Your task to perform on an android device: Add "asus zenbook" to the cart on costco Image 0: 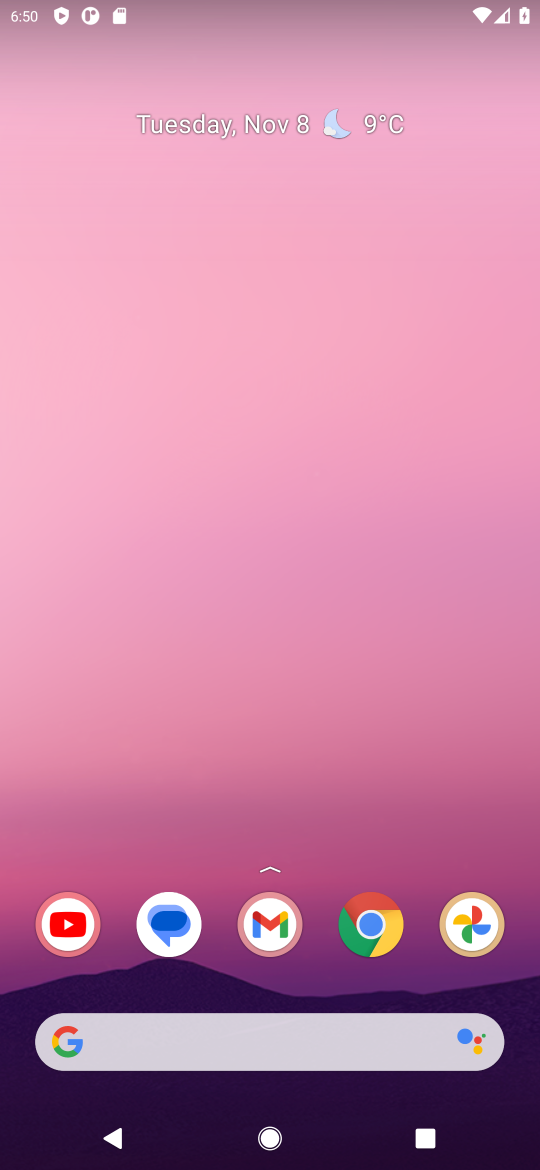
Step 0: click (278, 1046)
Your task to perform on an android device: Add "asus zenbook" to the cart on costco Image 1: 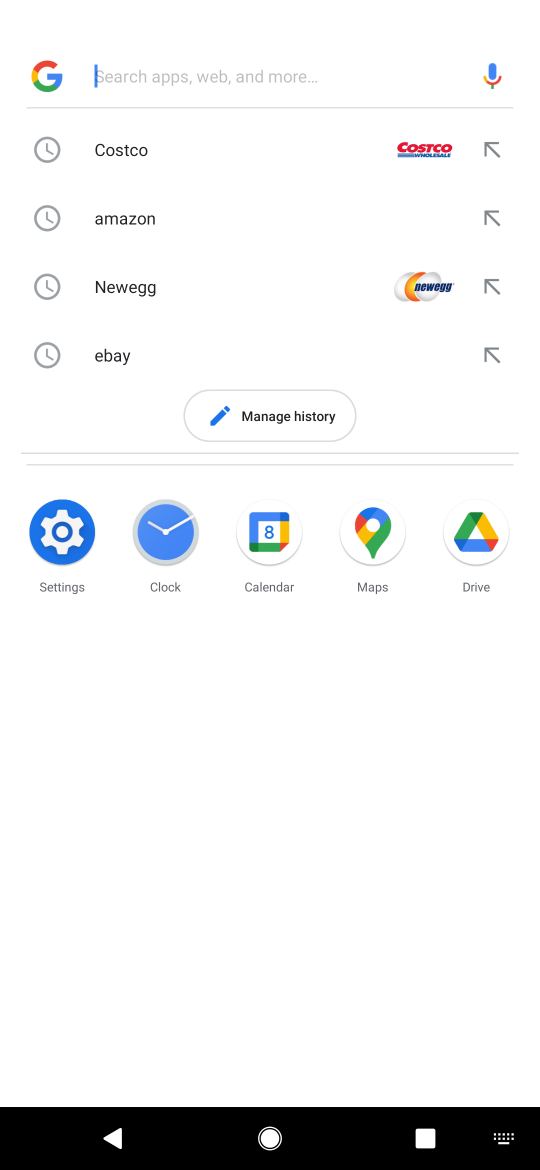
Step 1: click (296, 148)
Your task to perform on an android device: Add "asus zenbook" to the cart on costco Image 2: 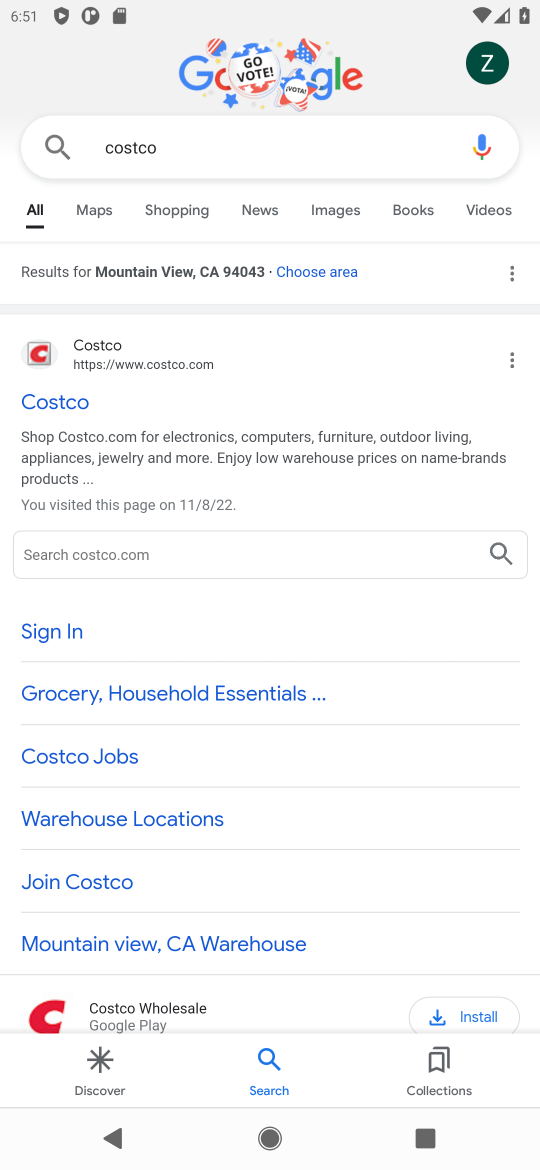
Step 2: click (90, 351)
Your task to perform on an android device: Add "asus zenbook" to the cart on costco Image 3: 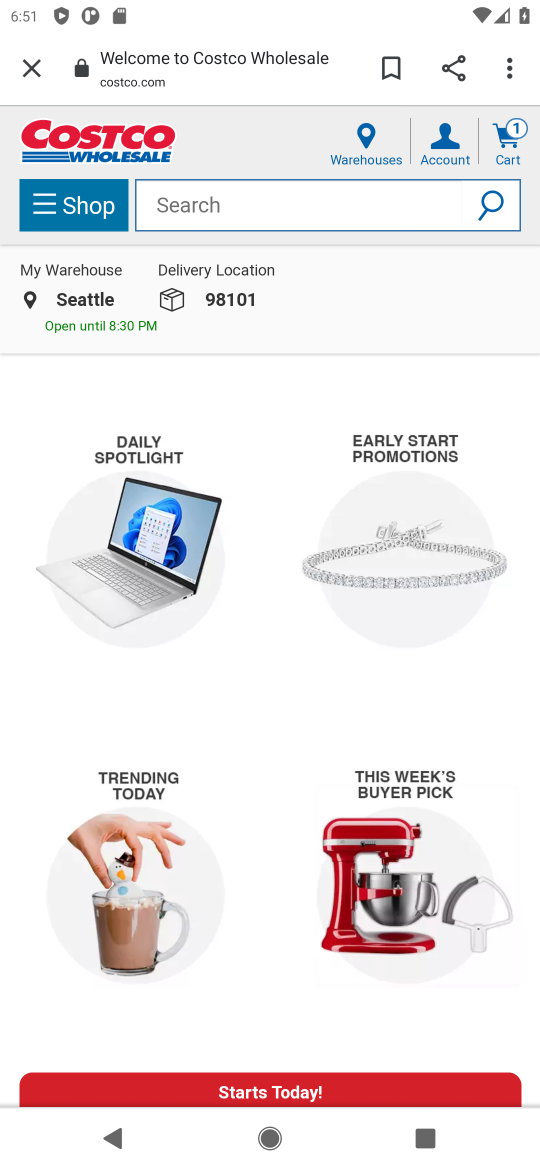
Step 3: click (281, 196)
Your task to perform on an android device: Add "asus zenbook" to the cart on costco Image 4: 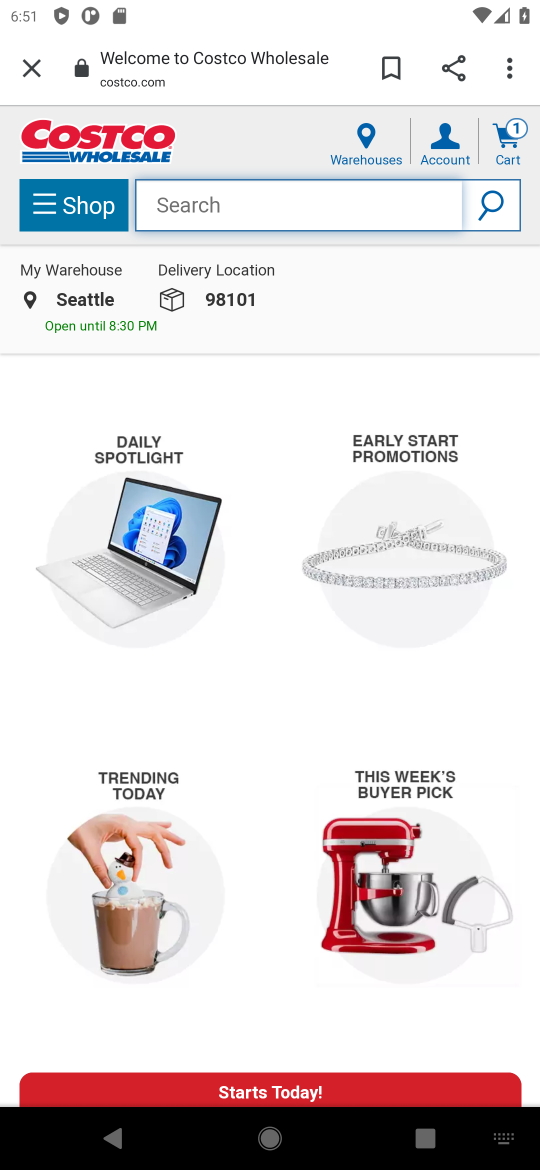
Step 4: type "asus zenbook"
Your task to perform on an android device: Add "asus zenbook" to the cart on costco Image 5: 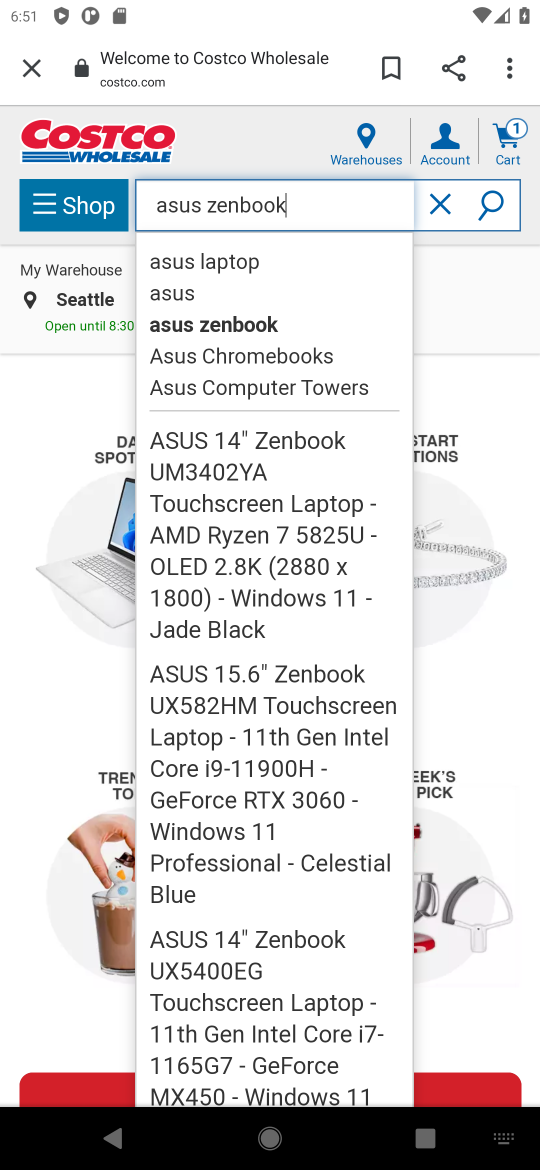
Step 5: click (227, 336)
Your task to perform on an android device: Add "asus zenbook" to the cart on costco Image 6: 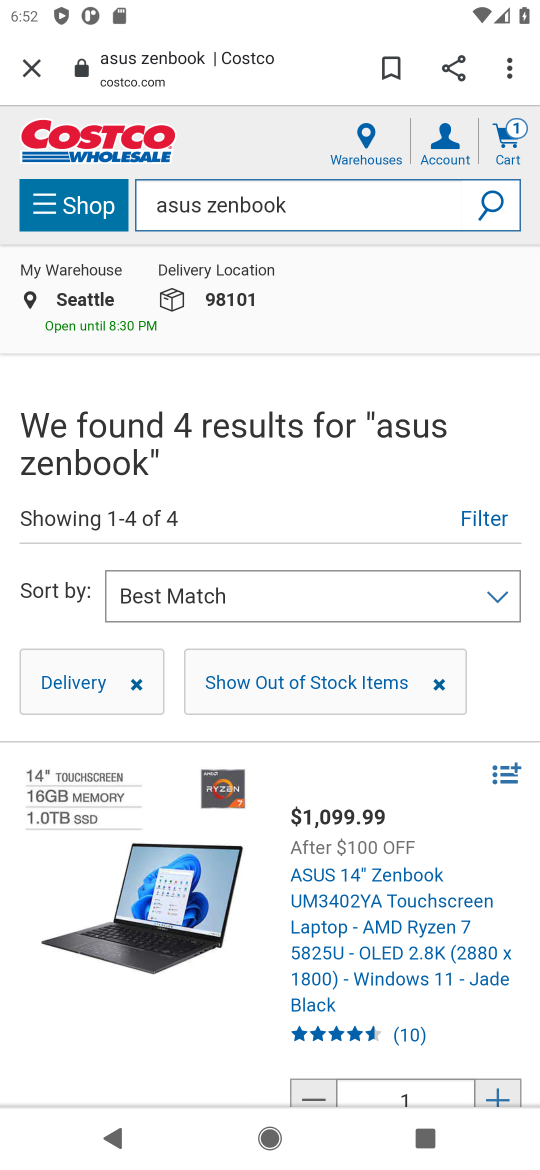
Step 6: drag from (266, 921) to (351, 524)
Your task to perform on an android device: Add "asus zenbook" to the cart on costco Image 7: 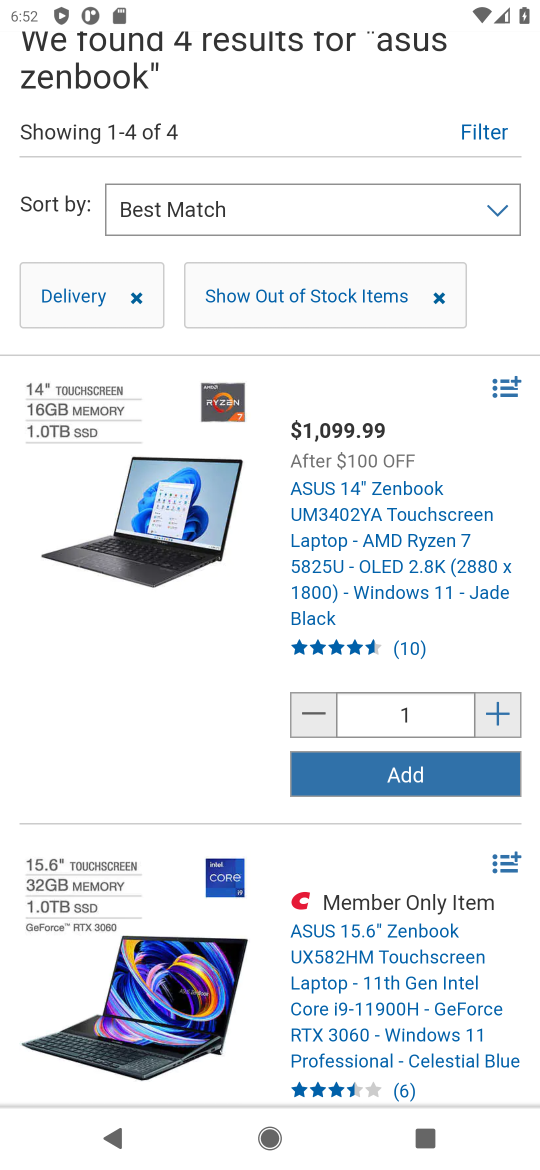
Step 7: click (407, 779)
Your task to perform on an android device: Add "asus zenbook" to the cart on costco Image 8: 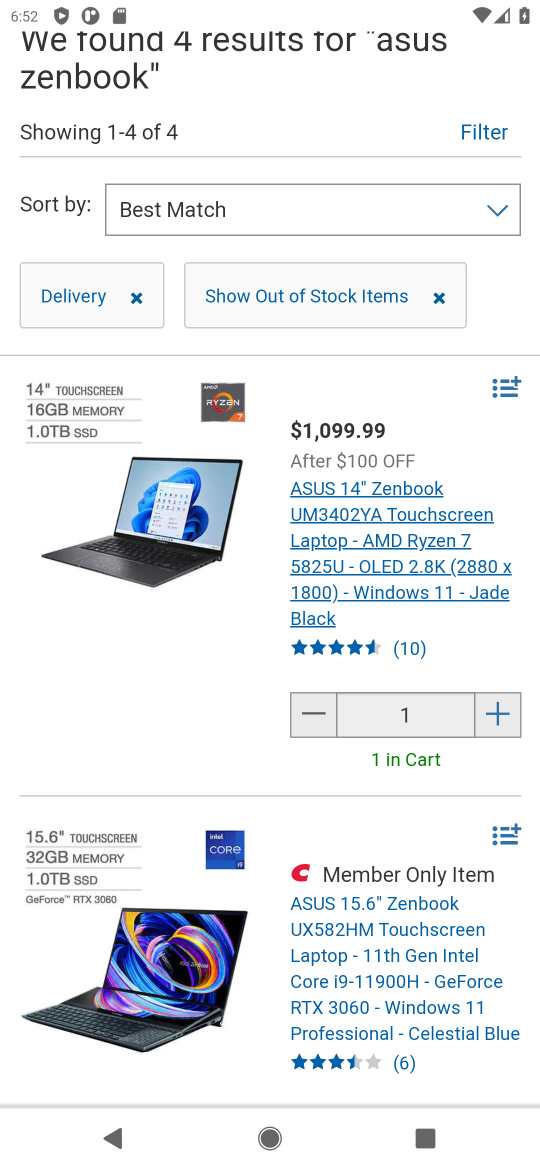
Step 8: task complete